Your task to perform on an android device: Open notification settings Image 0: 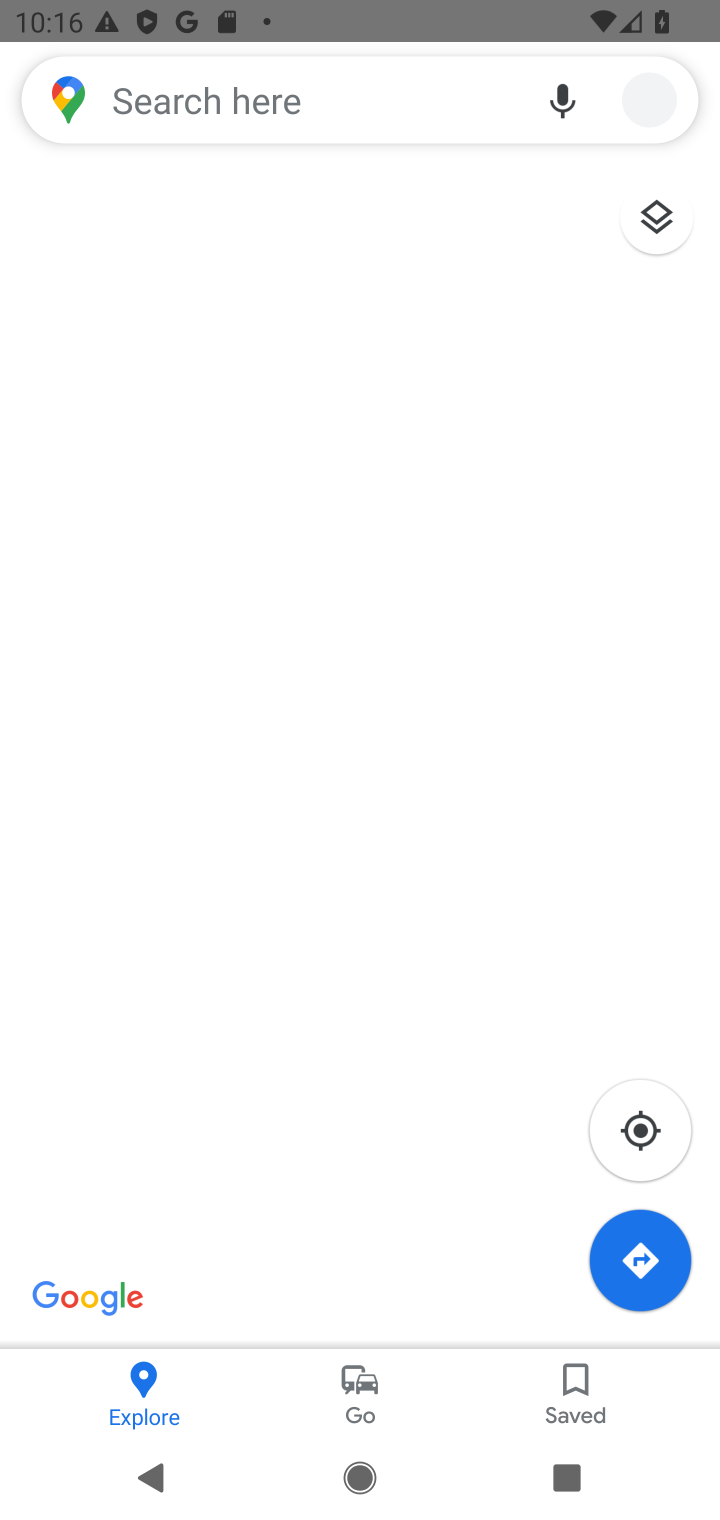
Step 0: press home button
Your task to perform on an android device: Open notification settings Image 1: 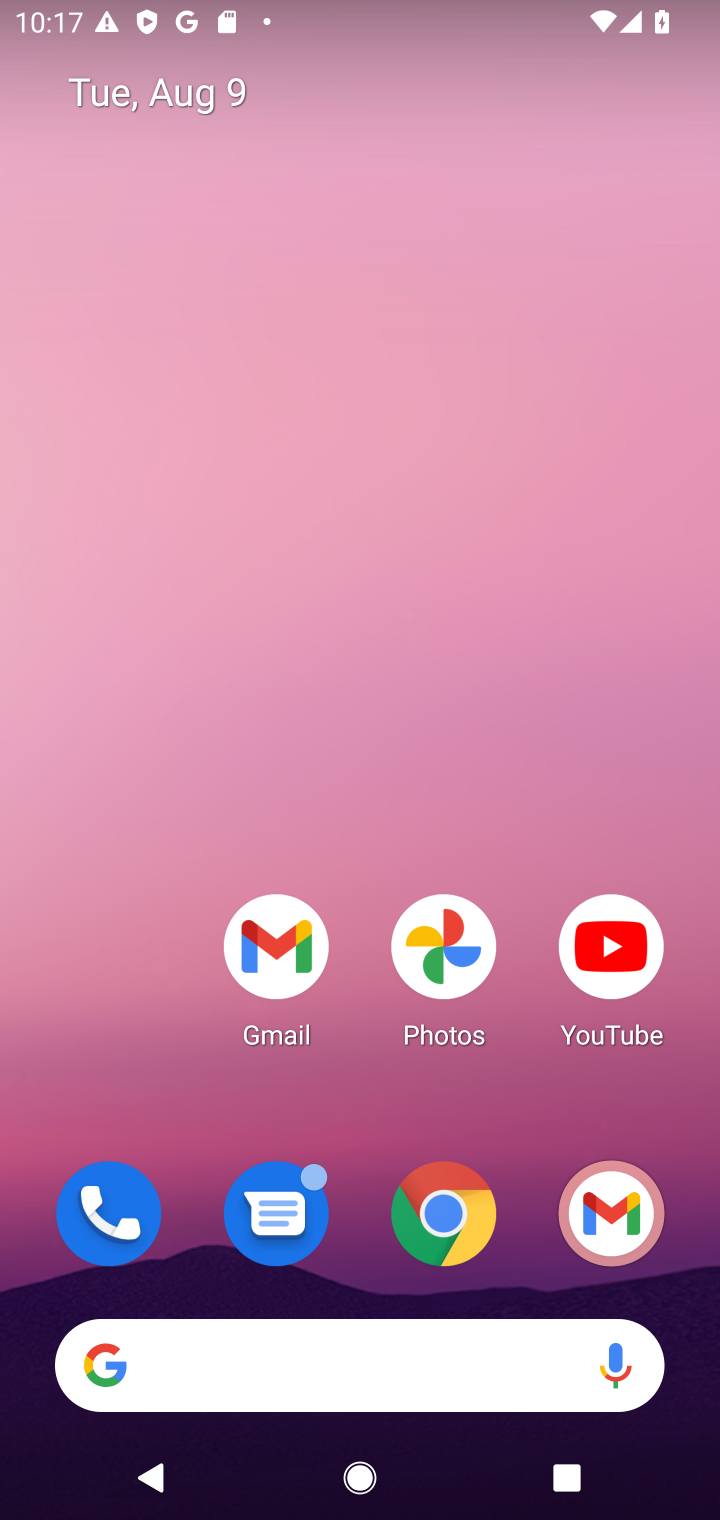
Step 1: drag from (360, 1283) to (249, 191)
Your task to perform on an android device: Open notification settings Image 2: 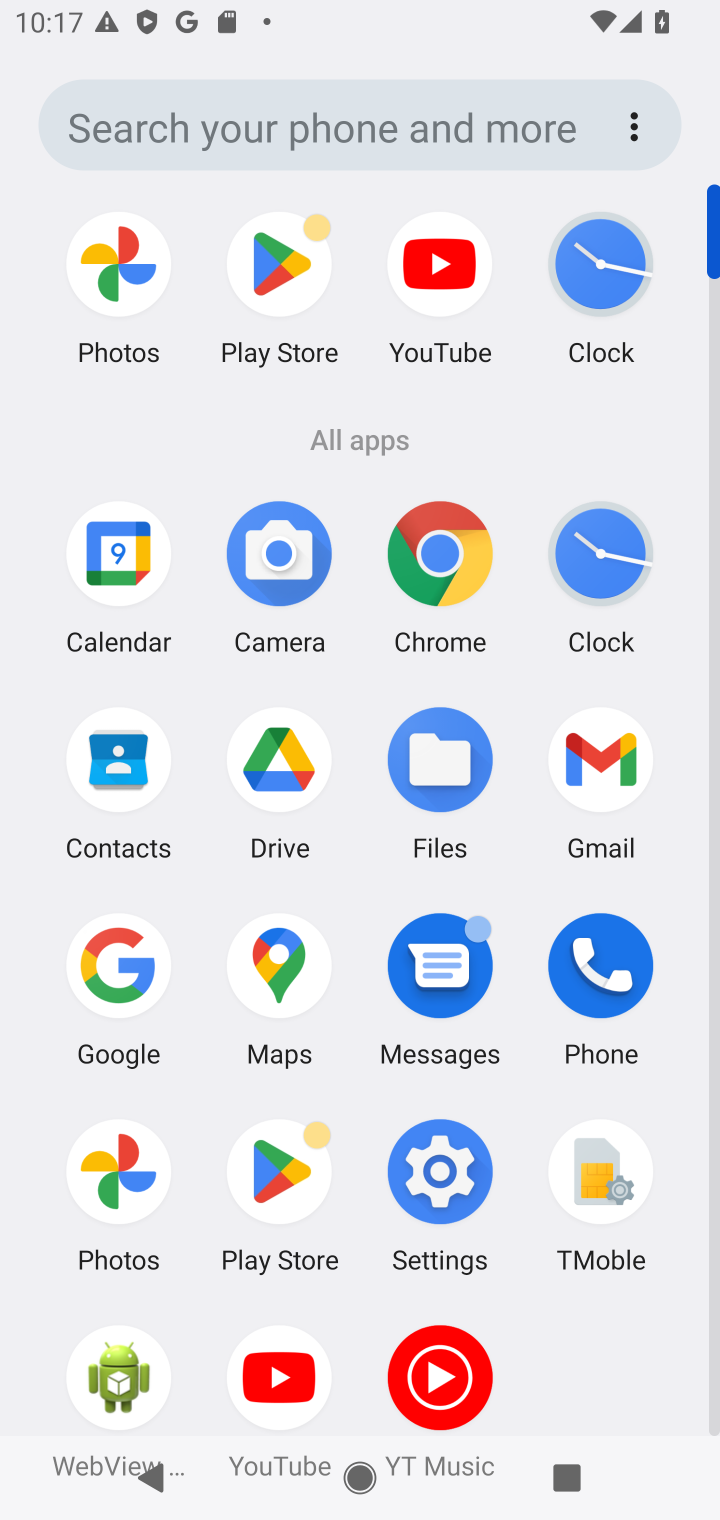
Step 2: click (450, 1187)
Your task to perform on an android device: Open notification settings Image 3: 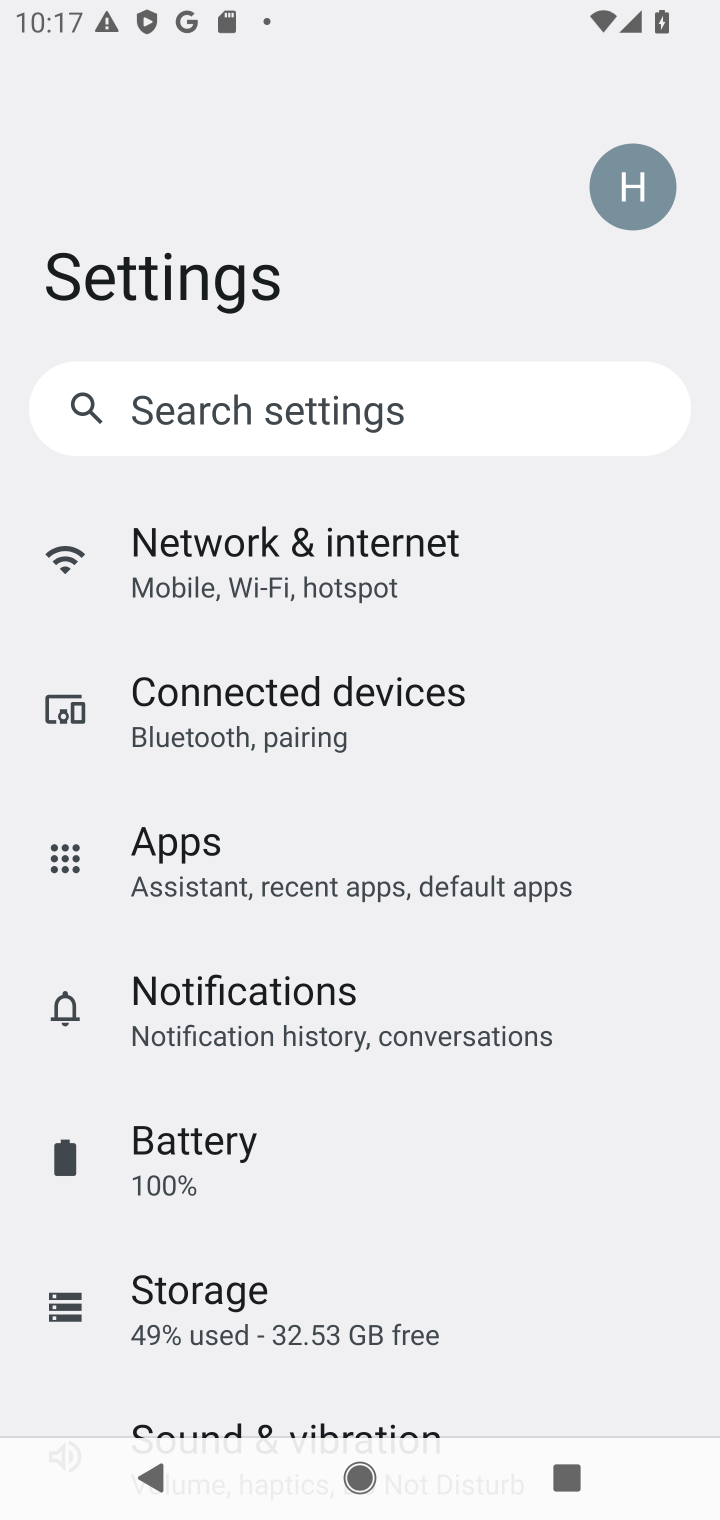
Step 3: click (324, 1018)
Your task to perform on an android device: Open notification settings Image 4: 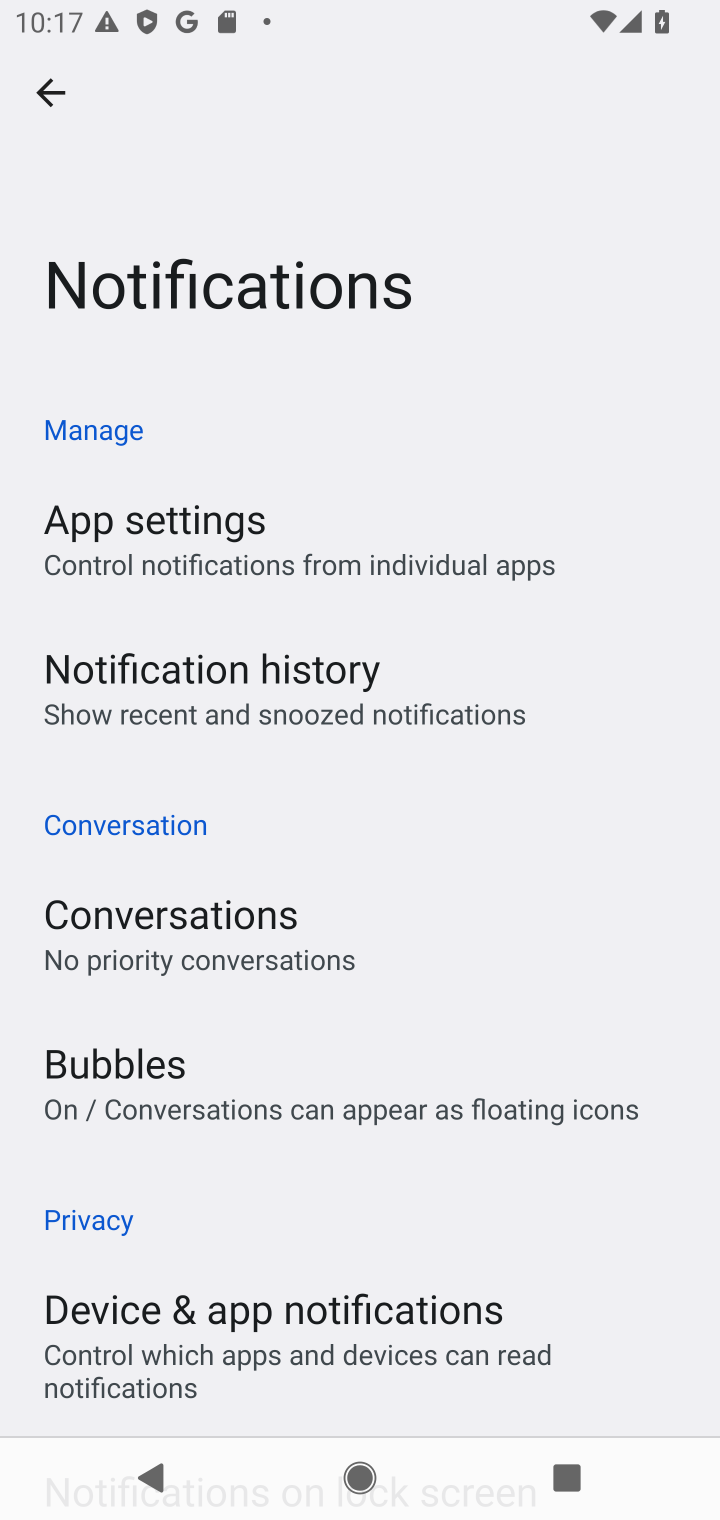
Step 4: task complete